Your task to perform on an android device: Go to Android settings Image 0: 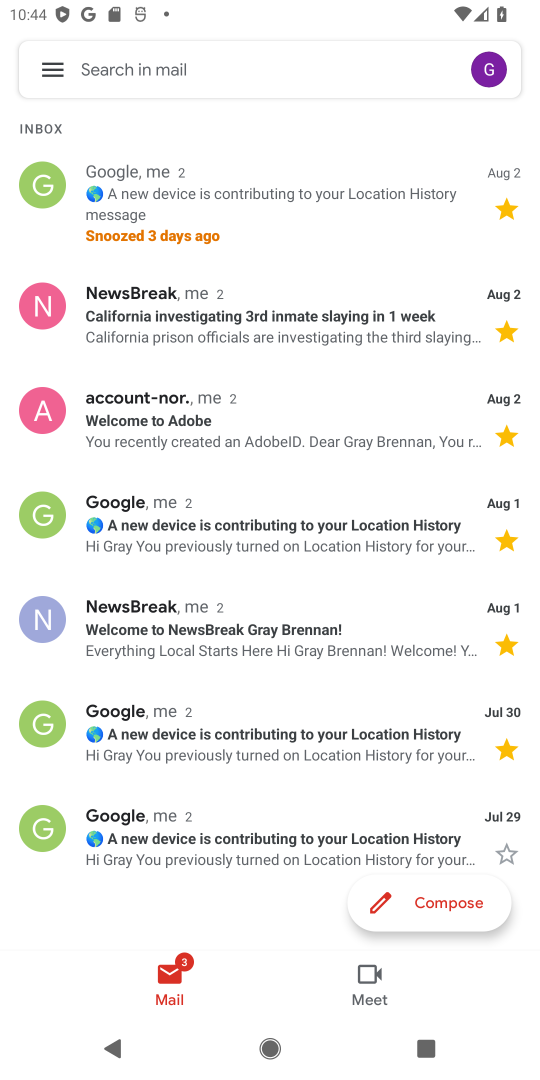
Step 0: press home button
Your task to perform on an android device: Go to Android settings Image 1: 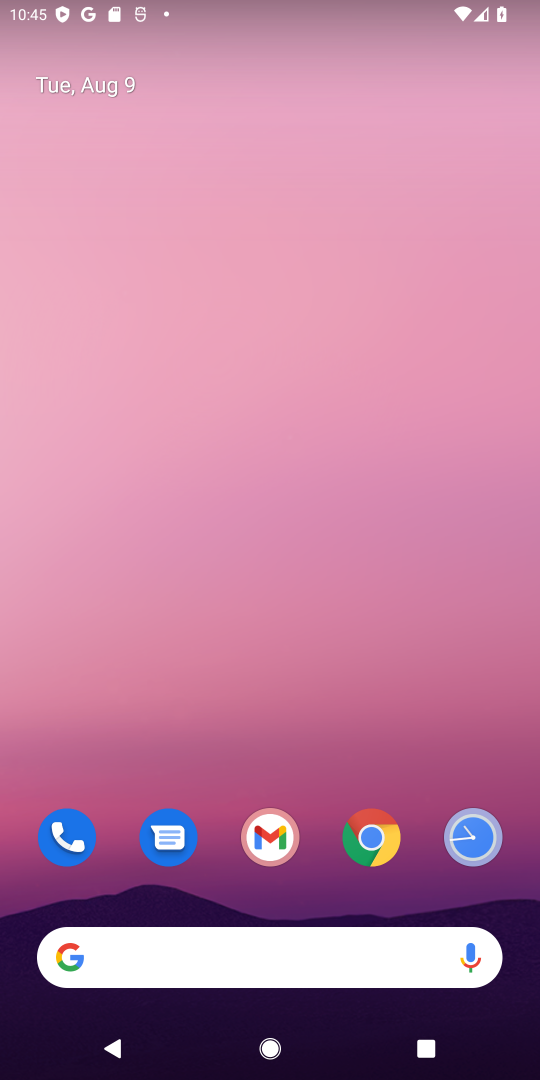
Step 1: drag from (317, 917) to (358, 79)
Your task to perform on an android device: Go to Android settings Image 2: 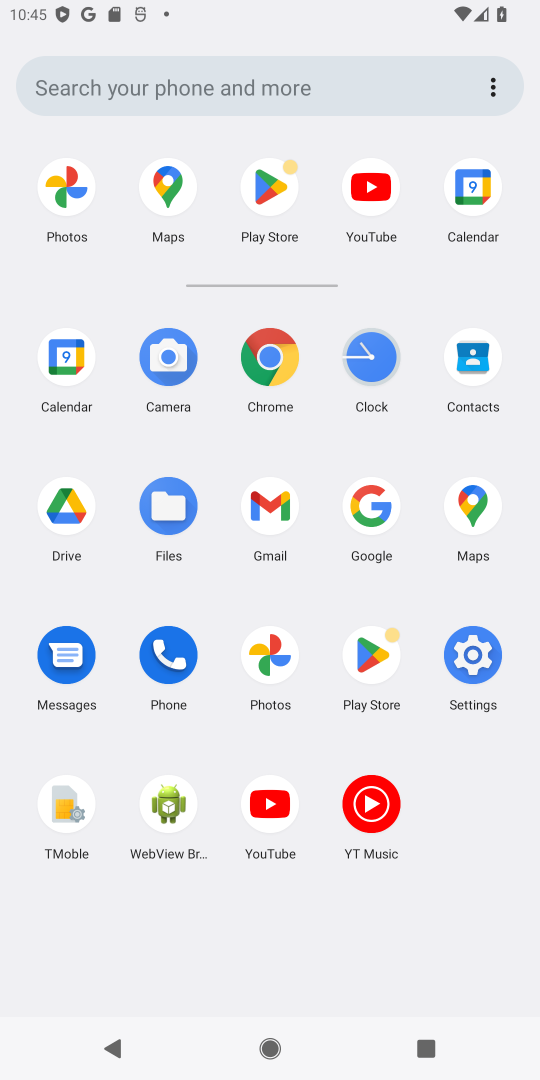
Step 2: click (469, 659)
Your task to perform on an android device: Go to Android settings Image 3: 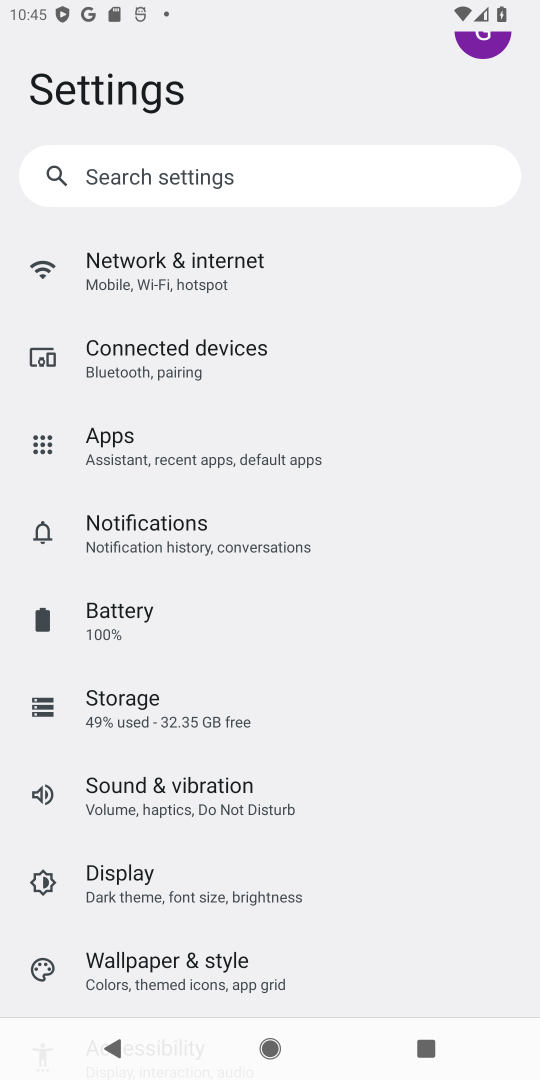
Step 3: task complete